Your task to perform on an android device: see creations saved in the google photos Image 0: 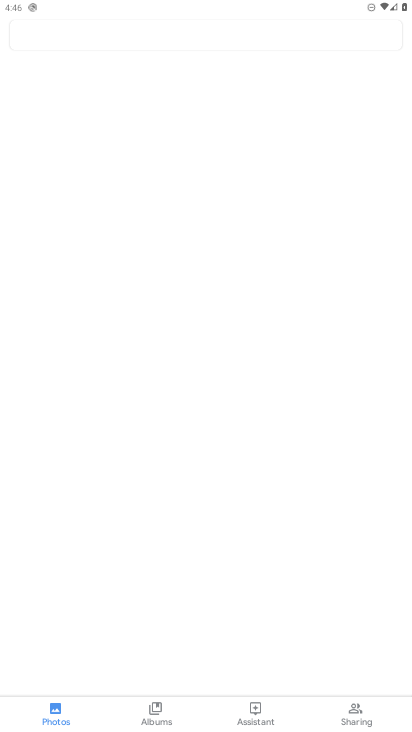
Step 0: press home button
Your task to perform on an android device: see creations saved in the google photos Image 1: 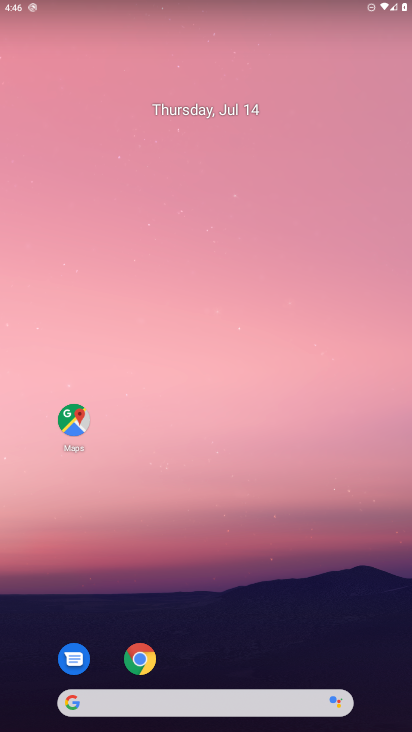
Step 1: drag from (211, 660) to (231, 54)
Your task to perform on an android device: see creations saved in the google photos Image 2: 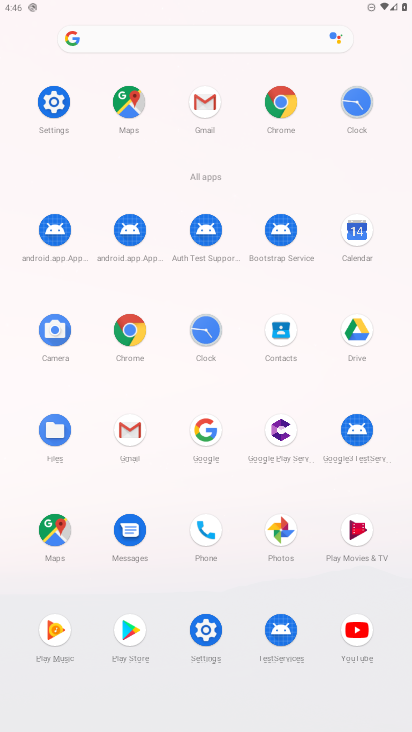
Step 2: click (276, 527)
Your task to perform on an android device: see creations saved in the google photos Image 3: 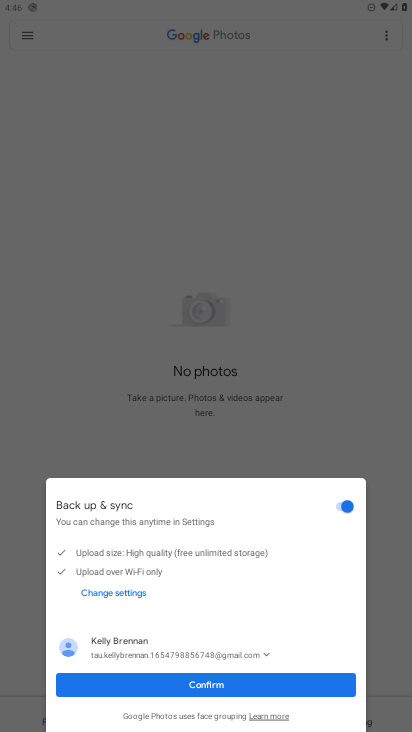
Step 3: click (193, 684)
Your task to perform on an android device: see creations saved in the google photos Image 4: 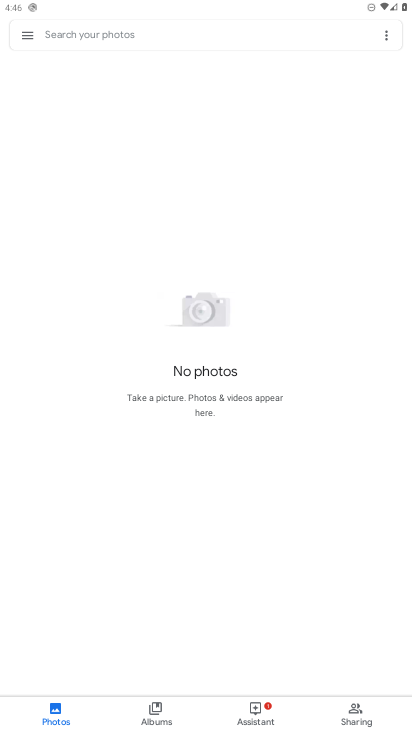
Step 4: click (24, 31)
Your task to perform on an android device: see creations saved in the google photos Image 5: 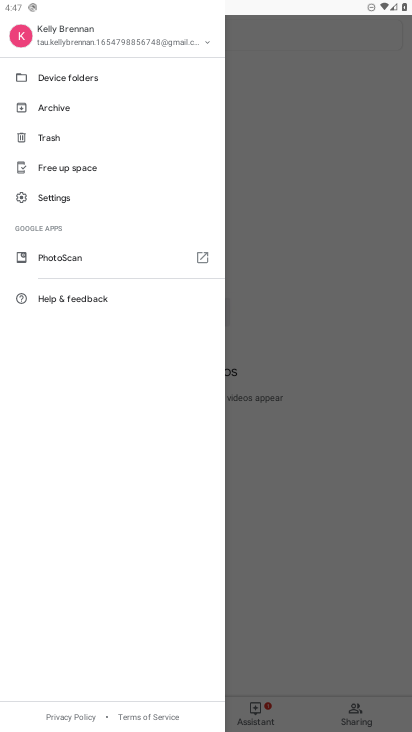
Step 5: click (298, 321)
Your task to perform on an android device: see creations saved in the google photos Image 6: 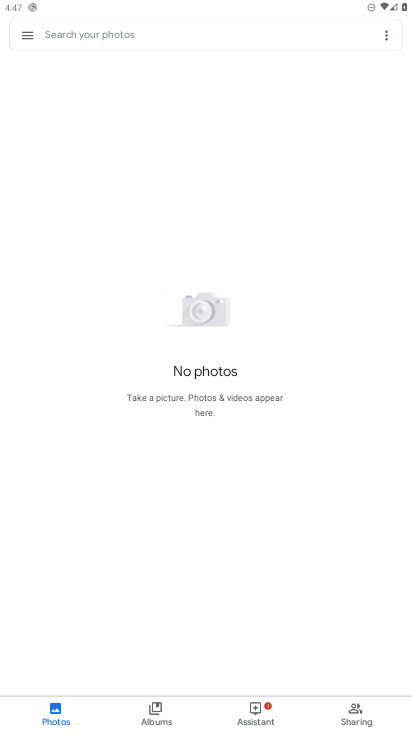
Step 6: click (100, 25)
Your task to perform on an android device: see creations saved in the google photos Image 7: 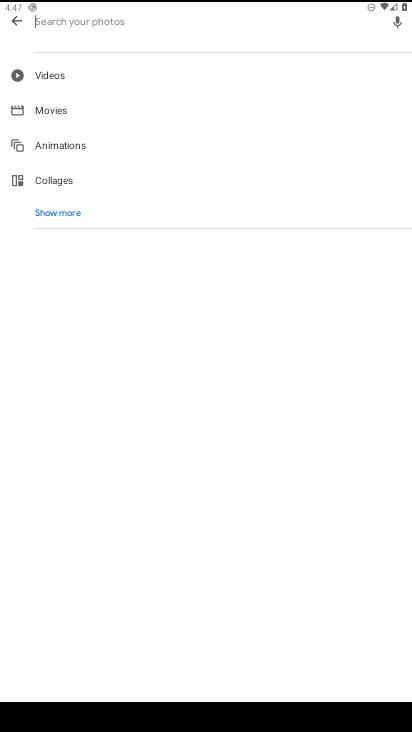
Step 7: click (46, 210)
Your task to perform on an android device: see creations saved in the google photos Image 8: 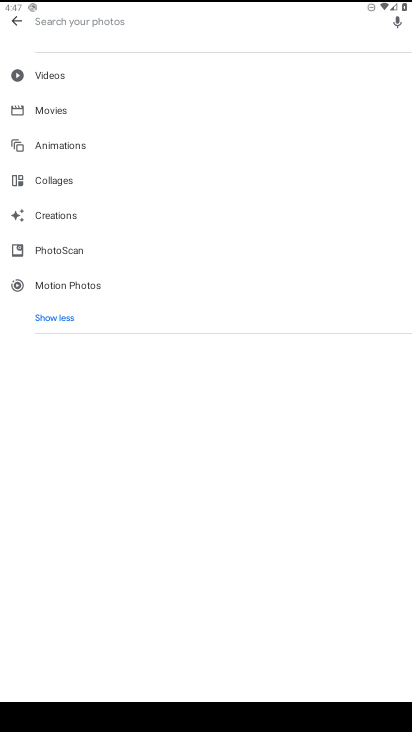
Step 8: click (73, 213)
Your task to perform on an android device: see creations saved in the google photos Image 9: 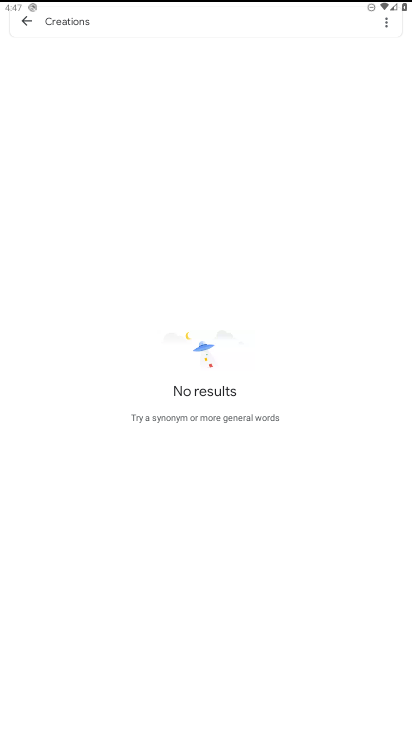
Step 9: task complete